Your task to perform on an android device: toggle sleep mode Image 0: 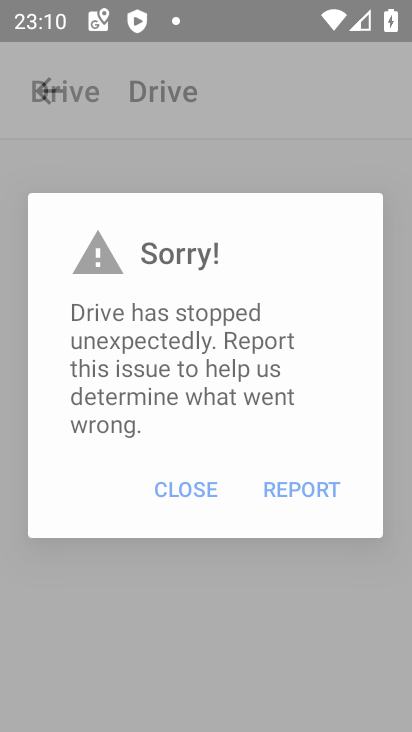
Step 0: drag from (380, 571) to (319, 71)
Your task to perform on an android device: toggle sleep mode Image 1: 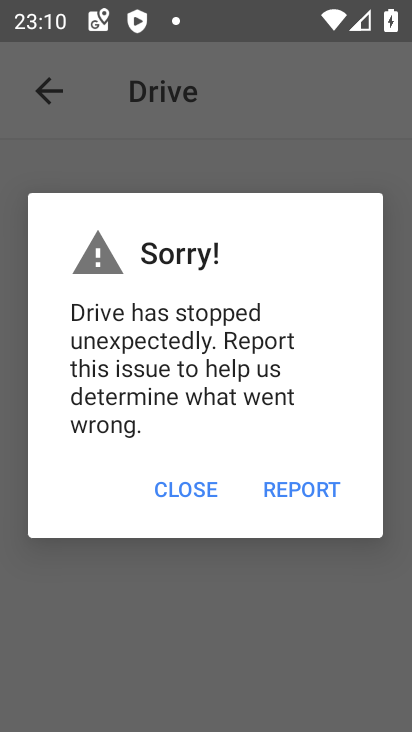
Step 1: press home button
Your task to perform on an android device: toggle sleep mode Image 2: 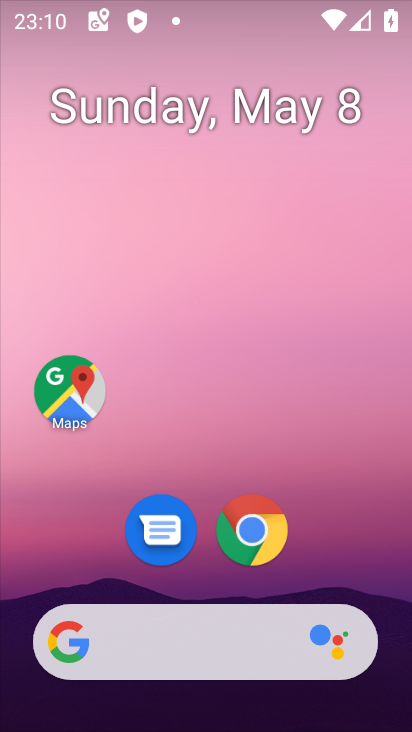
Step 2: click (337, 44)
Your task to perform on an android device: toggle sleep mode Image 3: 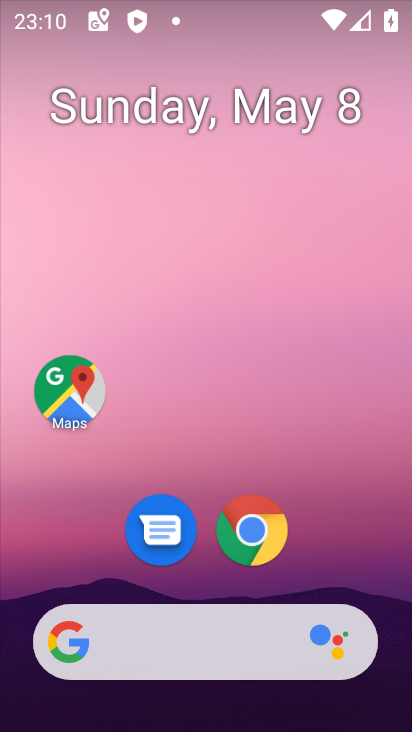
Step 3: drag from (389, 589) to (348, 138)
Your task to perform on an android device: toggle sleep mode Image 4: 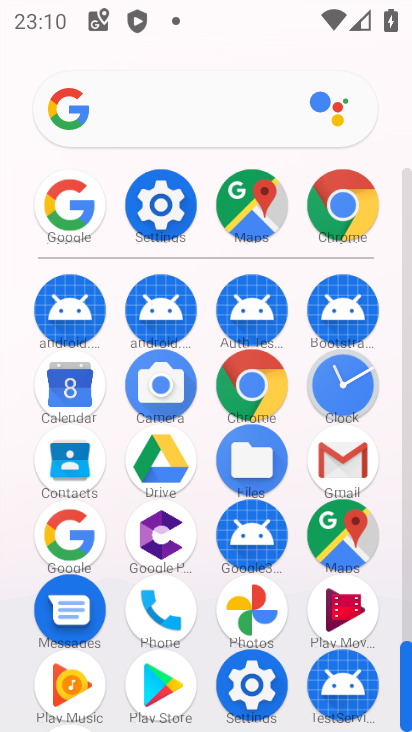
Step 4: click (138, 199)
Your task to perform on an android device: toggle sleep mode Image 5: 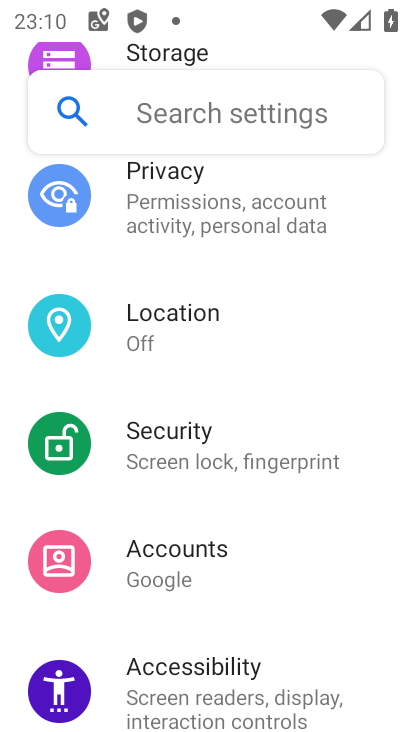
Step 5: click (223, 108)
Your task to perform on an android device: toggle sleep mode Image 6: 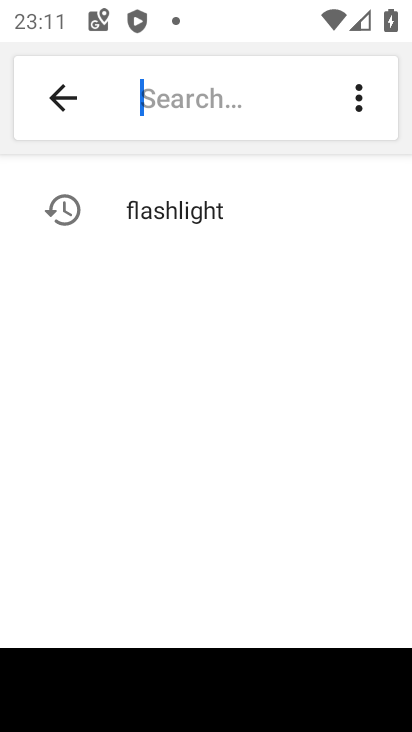
Step 6: type "sleep mode"
Your task to perform on an android device: toggle sleep mode Image 7: 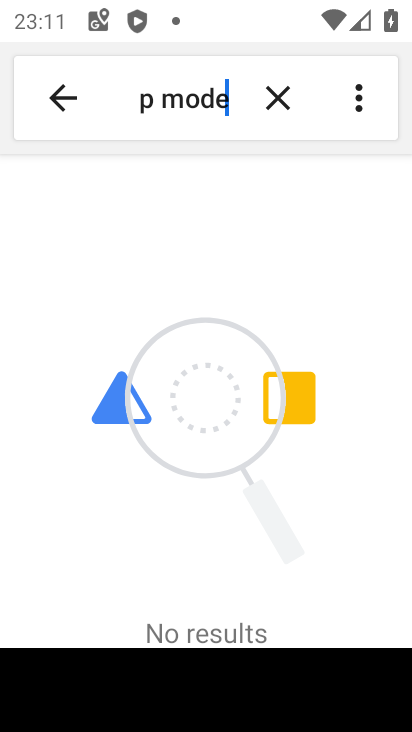
Step 7: task complete